Your task to perform on an android device: Go to Reddit.com Image 0: 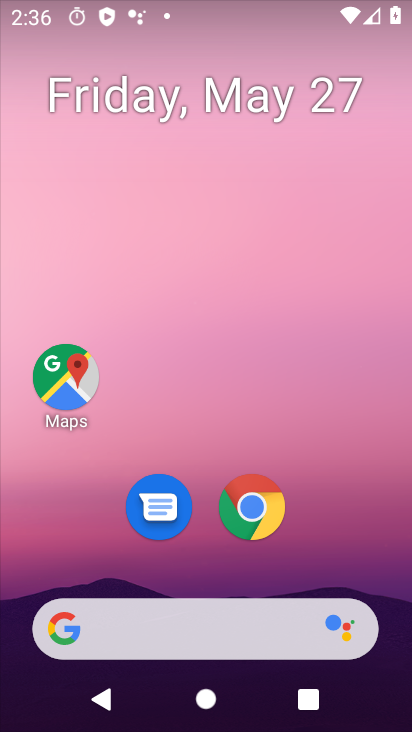
Step 0: drag from (192, 545) to (201, 96)
Your task to perform on an android device: Go to Reddit.com Image 1: 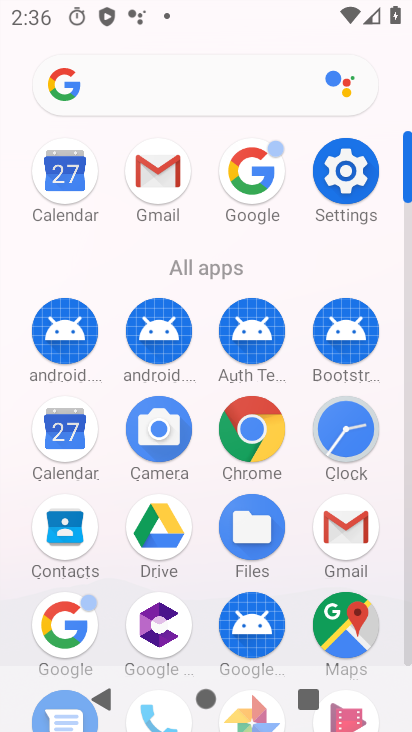
Step 1: click (232, 182)
Your task to perform on an android device: Go to Reddit.com Image 2: 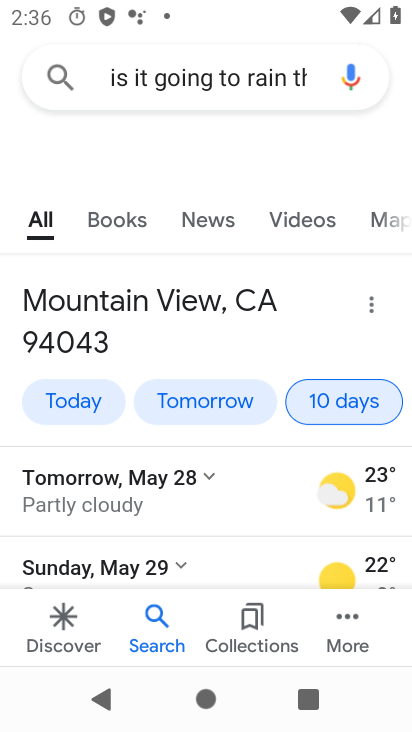
Step 2: click (269, 75)
Your task to perform on an android device: Go to Reddit.com Image 3: 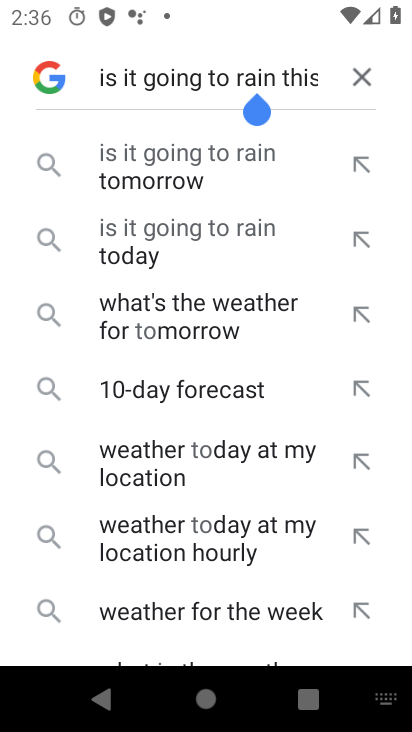
Step 3: click (361, 71)
Your task to perform on an android device: Go to Reddit.com Image 4: 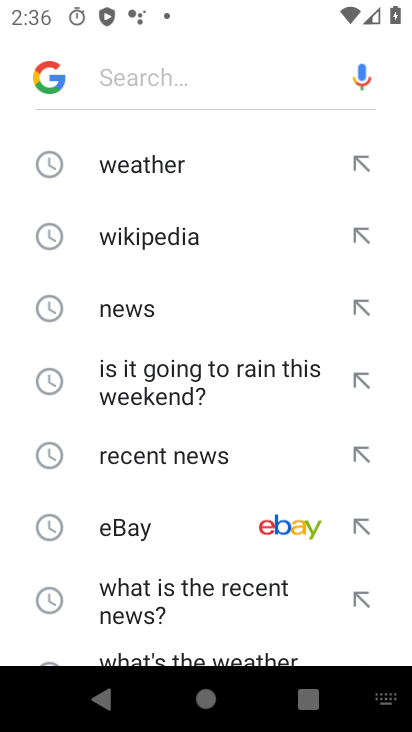
Step 4: drag from (166, 643) to (179, 163)
Your task to perform on an android device: Go to Reddit.com Image 5: 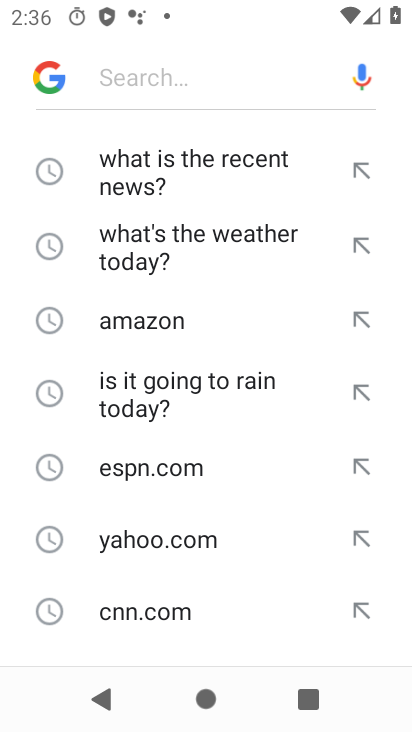
Step 5: drag from (152, 632) to (159, 192)
Your task to perform on an android device: Go to Reddit.com Image 6: 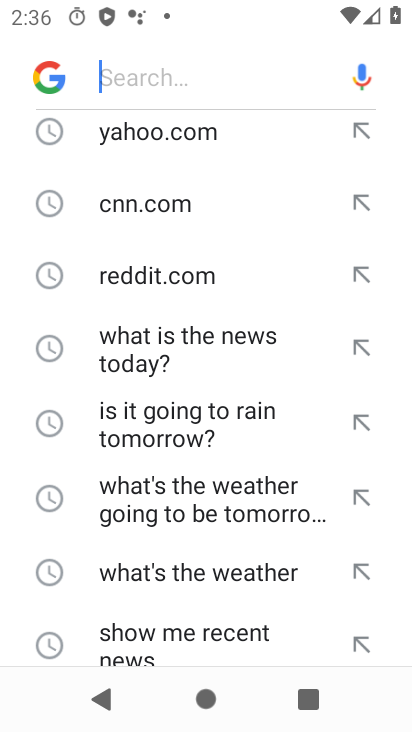
Step 6: click (142, 269)
Your task to perform on an android device: Go to Reddit.com Image 7: 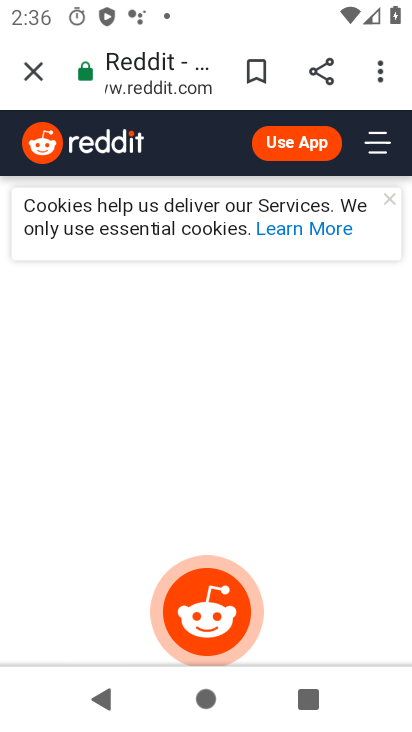
Step 7: task complete